Your task to perform on an android device: Search for sushi restaurants on Maps Image 0: 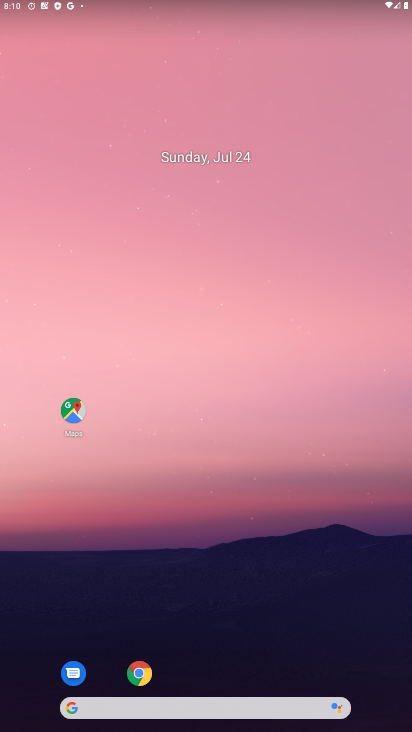
Step 0: click (75, 410)
Your task to perform on an android device: Search for sushi restaurants on Maps Image 1: 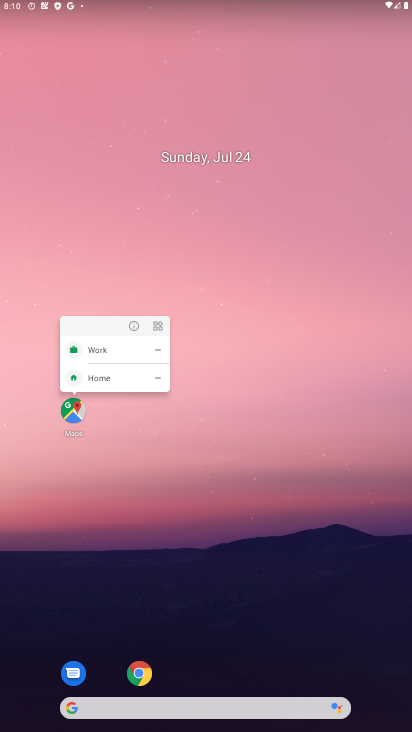
Step 1: click (69, 422)
Your task to perform on an android device: Search for sushi restaurants on Maps Image 2: 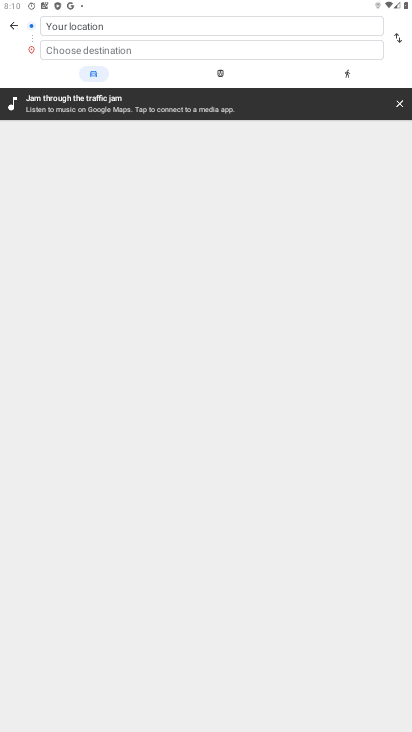
Step 2: click (11, 21)
Your task to perform on an android device: Search for sushi restaurants on Maps Image 3: 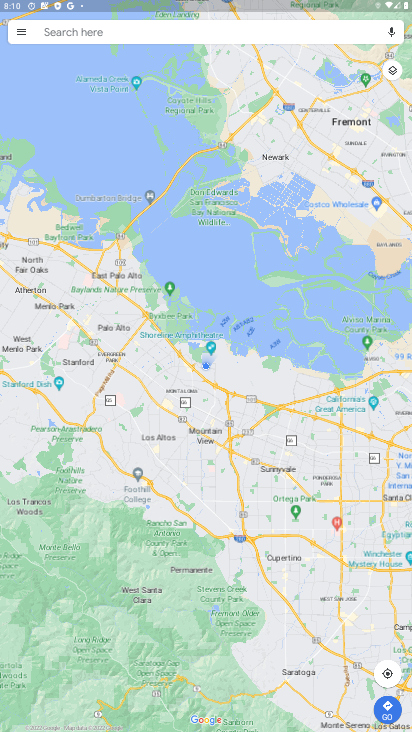
Step 3: click (68, 25)
Your task to perform on an android device: Search for sushi restaurants on Maps Image 4: 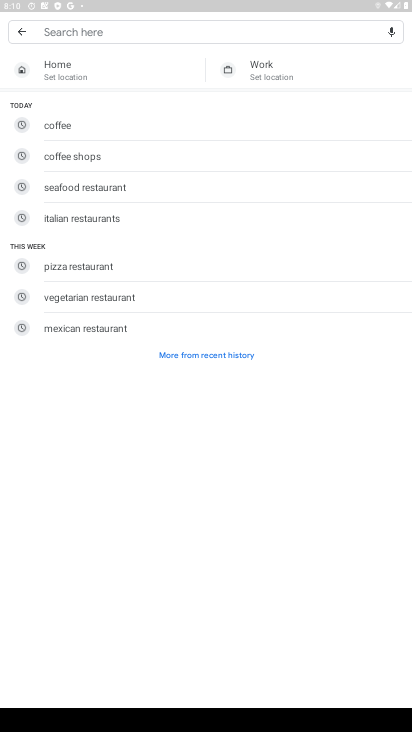
Step 4: type "sushi restaurants "
Your task to perform on an android device: Search for sushi restaurants on Maps Image 5: 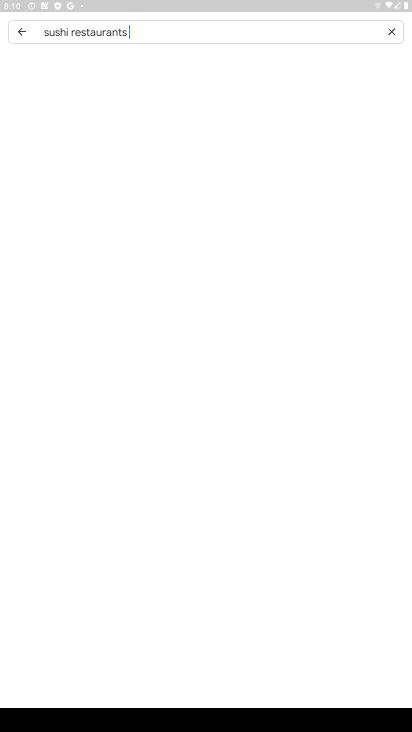
Step 5: type ""
Your task to perform on an android device: Search for sushi restaurants on Maps Image 6: 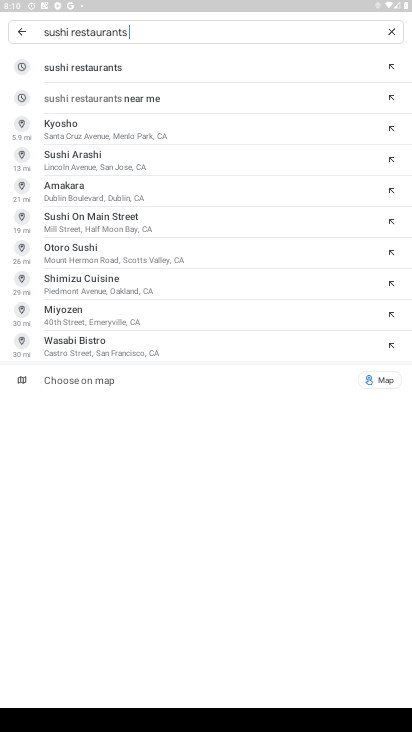
Step 6: click (111, 62)
Your task to perform on an android device: Search for sushi restaurants on Maps Image 7: 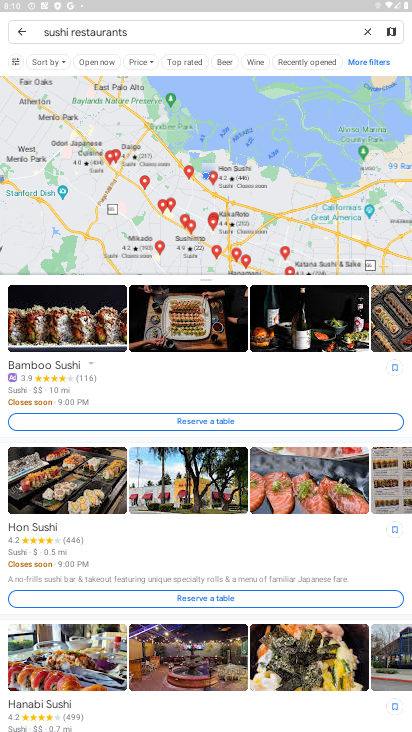
Step 7: task complete